Your task to perform on an android device: allow notifications from all sites in the chrome app Image 0: 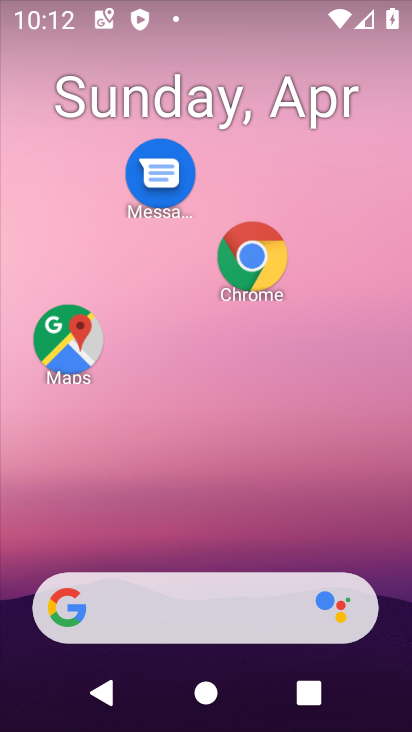
Step 0: click (251, 258)
Your task to perform on an android device: allow notifications from all sites in the chrome app Image 1: 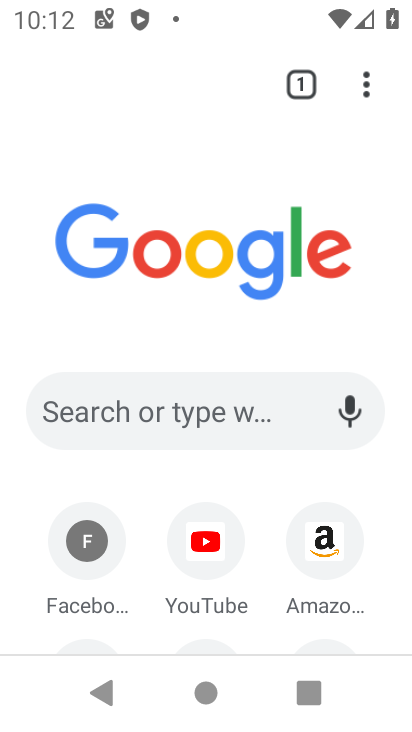
Step 1: drag from (368, 86) to (182, 510)
Your task to perform on an android device: allow notifications from all sites in the chrome app Image 2: 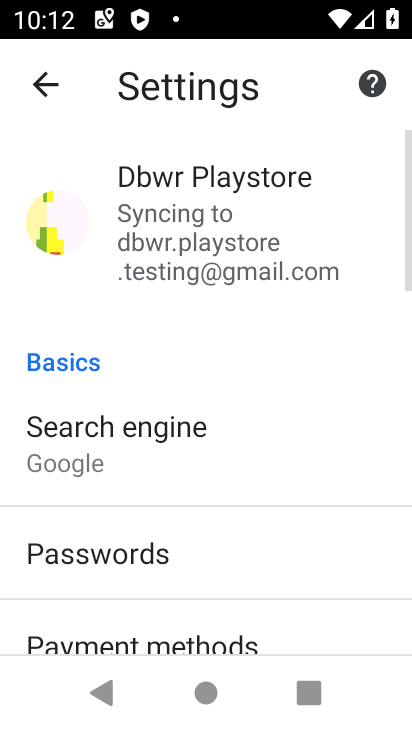
Step 2: drag from (207, 635) to (207, 272)
Your task to perform on an android device: allow notifications from all sites in the chrome app Image 3: 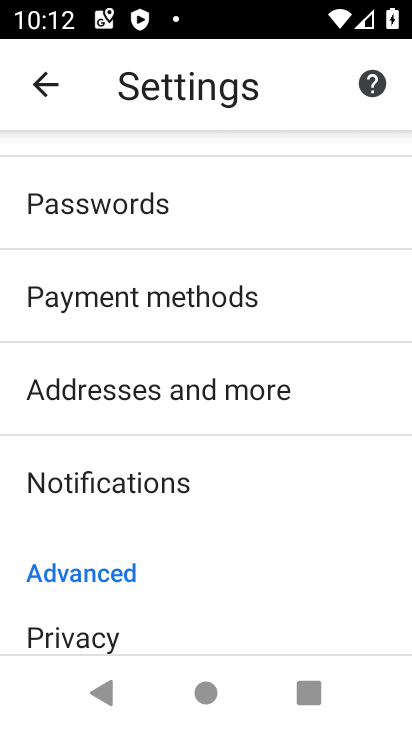
Step 3: drag from (190, 633) to (228, 273)
Your task to perform on an android device: allow notifications from all sites in the chrome app Image 4: 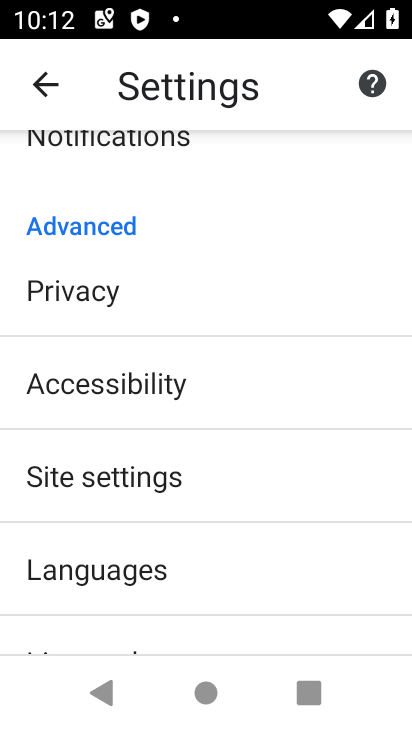
Step 4: click (123, 475)
Your task to perform on an android device: allow notifications from all sites in the chrome app Image 5: 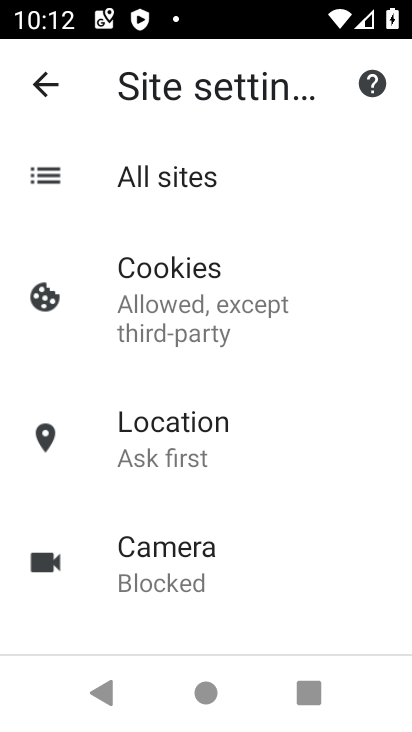
Step 5: drag from (206, 613) to (251, 280)
Your task to perform on an android device: allow notifications from all sites in the chrome app Image 6: 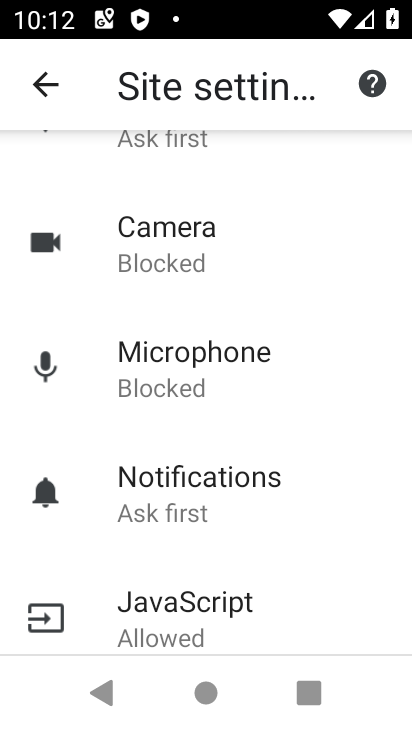
Step 6: click (148, 490)
Your task to perform on an android device: allow notifications from all sites in the chrome app Image 7: 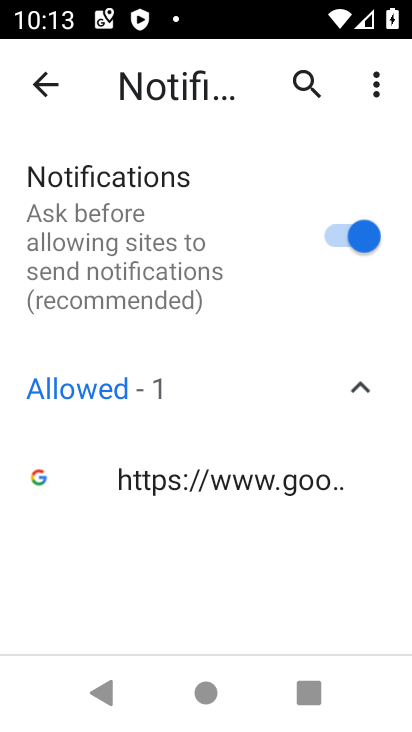
Step 7: task complete